Your task to perform on an android device: open wifi settings Image 0: 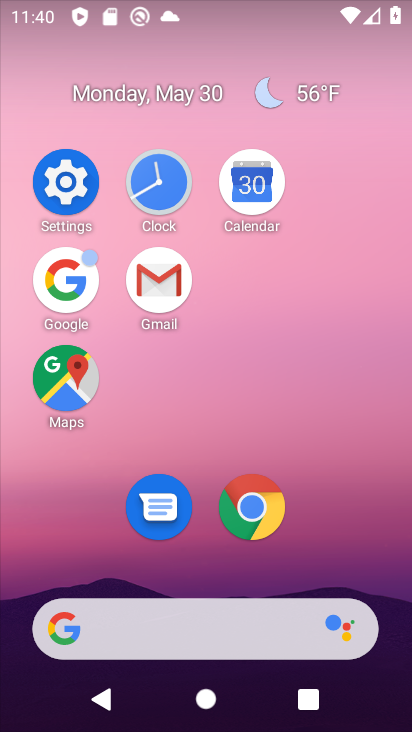
Step 0: click (59, 178)
Your task to perform on an android device: open wifi settings Image 1: 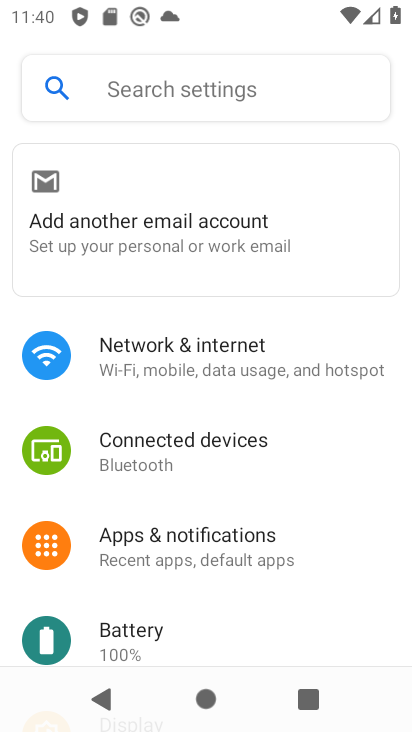
Step 1: click (296, 344)
Your task to perform on an android device: open wifi settings Image 2: 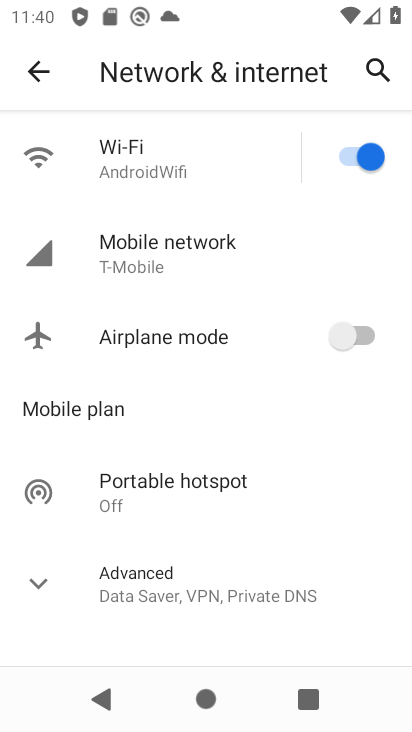
Step 2: click (174, 146)
Your task to perform on an android device: open wifi settings Image 3: 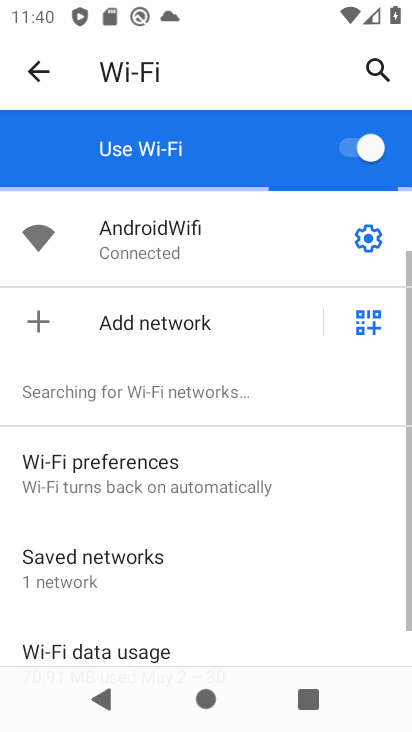
Step 3: click (369, 236)
Your task to perform on an android device: open wifi settings Image 4: 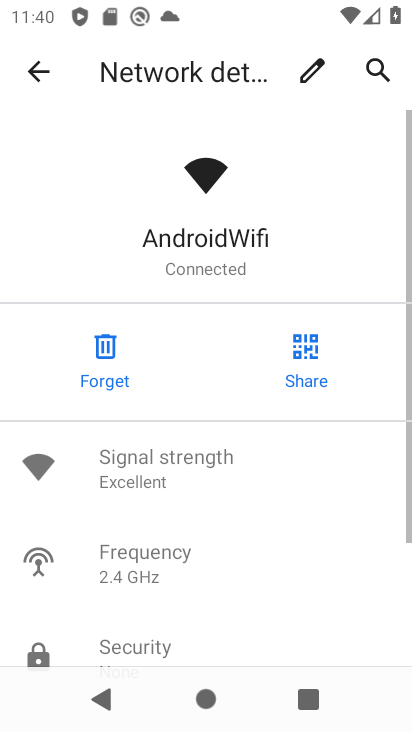
Step 4: task complete